Your task to perform on an android device: see tabs open on other devices in the chrome app Image 0: 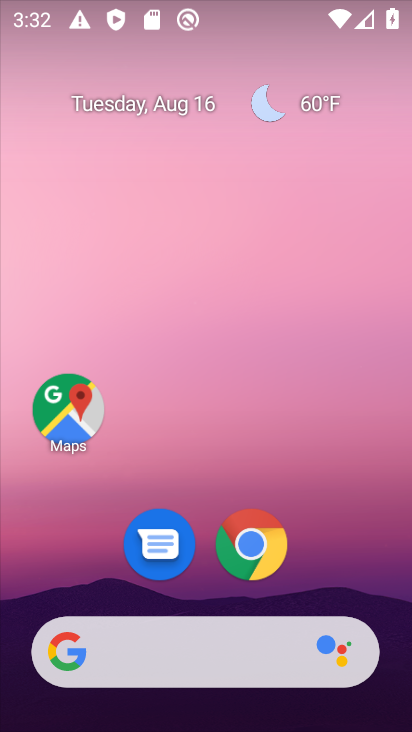
Step 0: drag from (390, 601) to (224, 2)
Your task to perform on an android device: see tabs open on other devices in the chrome app Image 1: 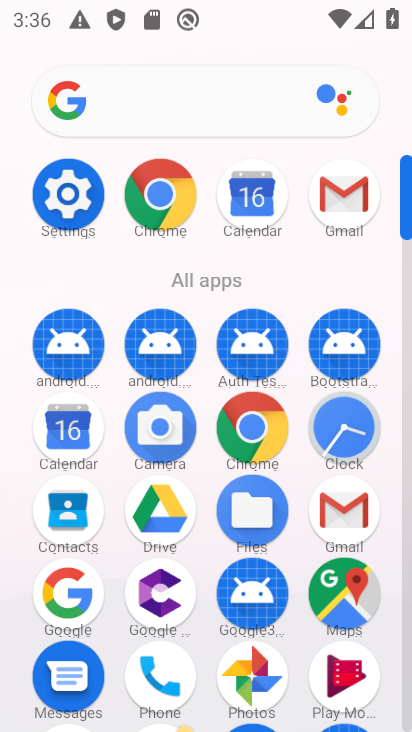
Step 1: click (263, 417)
Your task to perform on an android device: see tabs open on other devices in the chrome app Image 2: 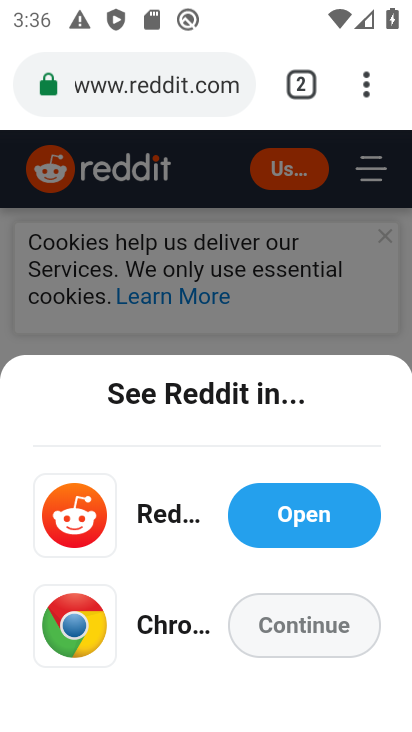
Step 2: task complete